Your task to perform on an android device: uninstall "Contacts" Image 0: 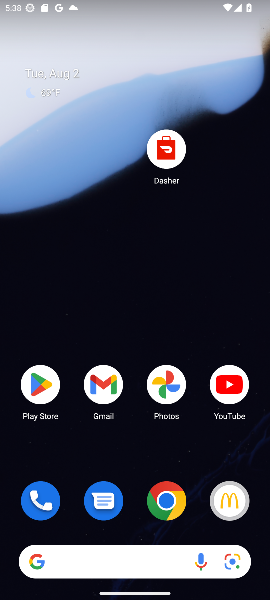
Step 0: click (36, 400)
Your task to perform on an android device: uninstall "Contacts" Image 1: 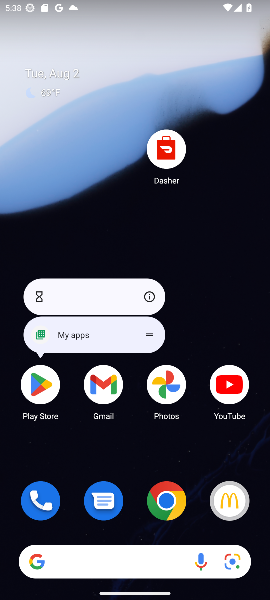
Step 1: click (39, 390)
Your task to perform on an android device: uninstall "Contacts" Image 2: 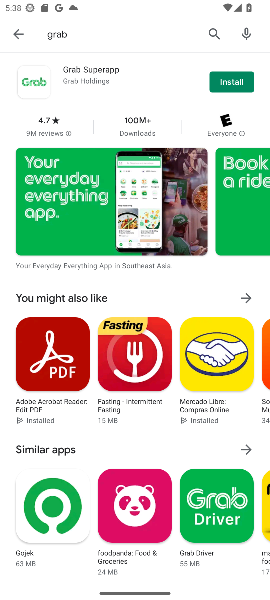
Step 2: click (211, 31)
Your task to perform on an android device: uninstall "Contacts" Image 3: 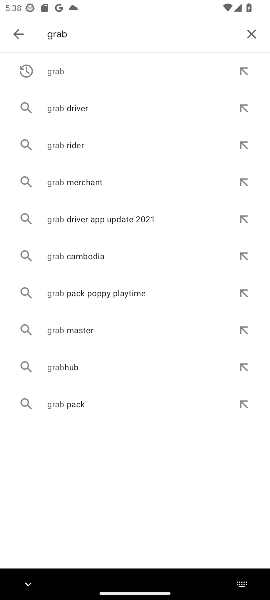
Step 3: click (246, 32)
Your task to perform on an android device: uninstall "Contacts" Image 4: 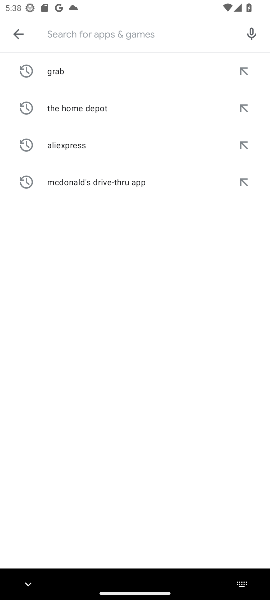
Step 4: type "Contacts"
Your task to perform on an android device: uninstall "Contacts" Image 5: 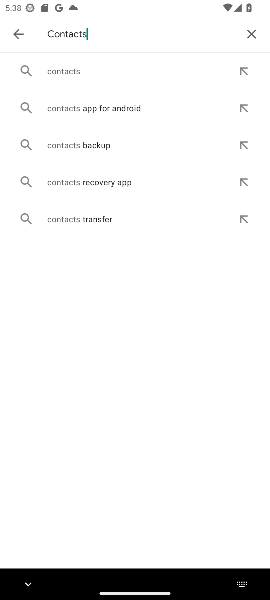
Step 5: click (72, 75)
Your task to perform on an android device: uninstall "Contacts" Image 6: 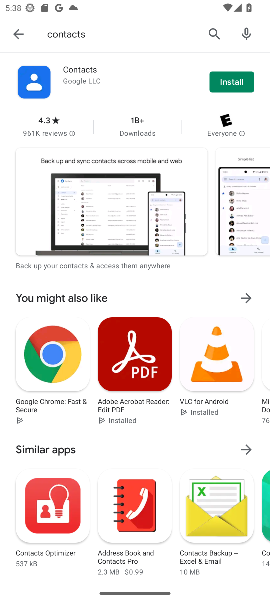
Step 6: task complete